Your task to perform on an android device: Go to sound settings Image 0: 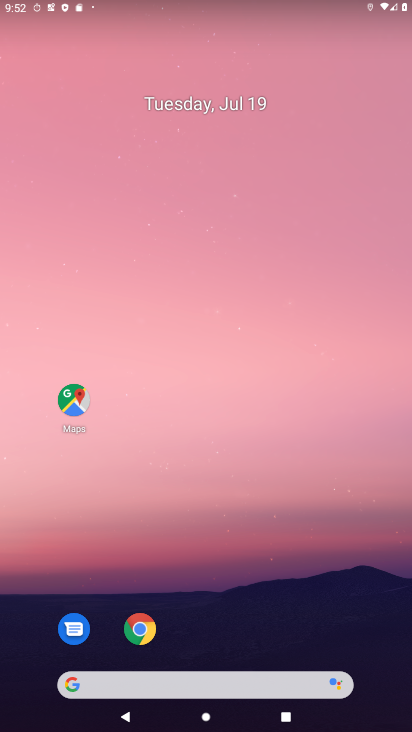
Step 0: drag from (206, 577) to (265, 0)
Your task to perform on an android device: Go to sound settings Image 1: 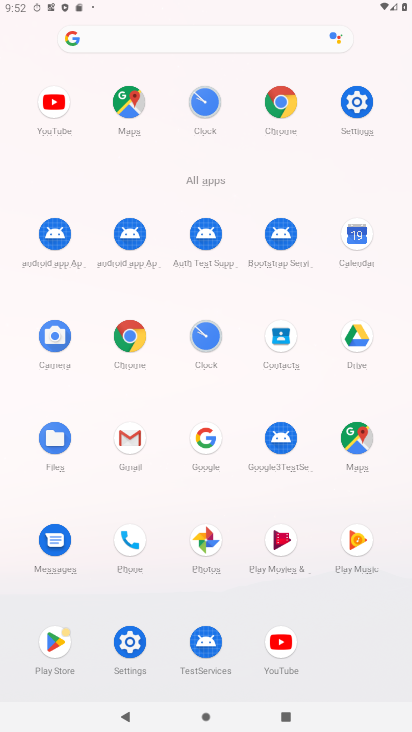
Step 1: click (126, 646)
Your task to perform on an android device: Go to sound settings Image 2: 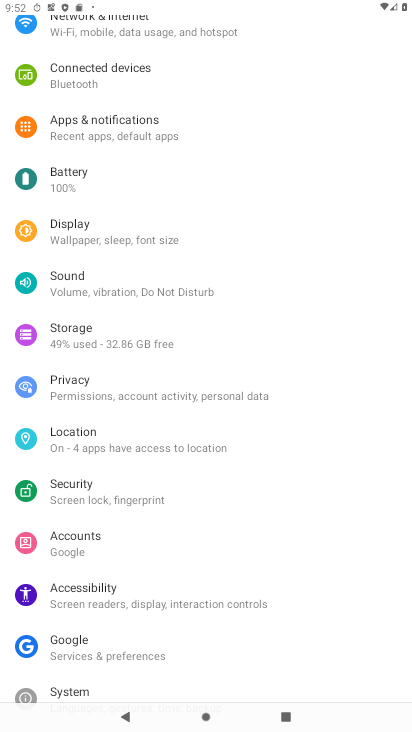
Step 2: click (92, 283)
Your task to perform on an android device: Go to sound settings Image 3: 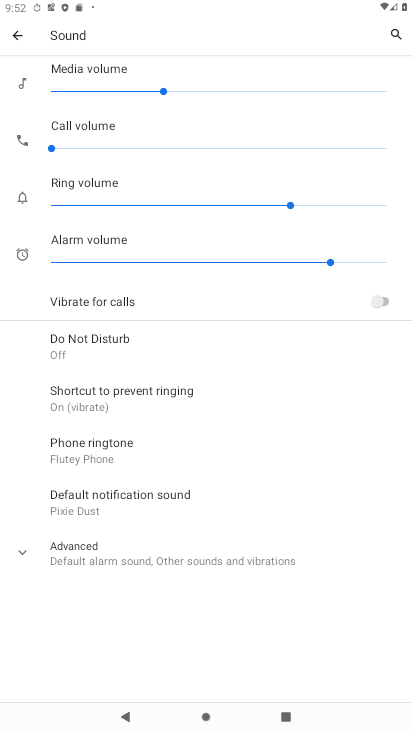
Step 3: task complete